Your task to perform on an android device: Open location settings Image 0: 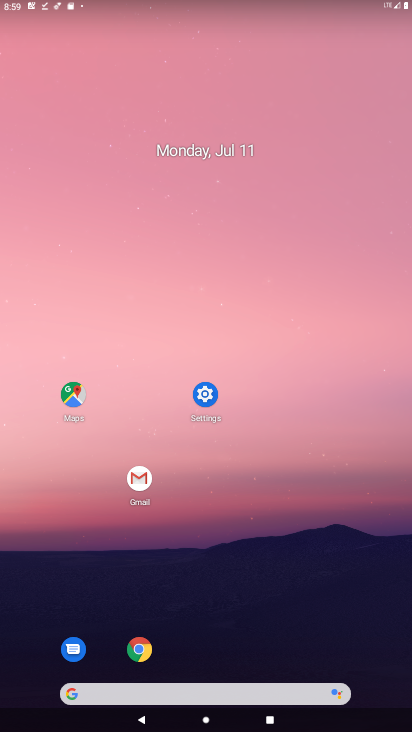
Step 0: click (215, 391)
Your task to perform on an android device: Open location settings Image 1: 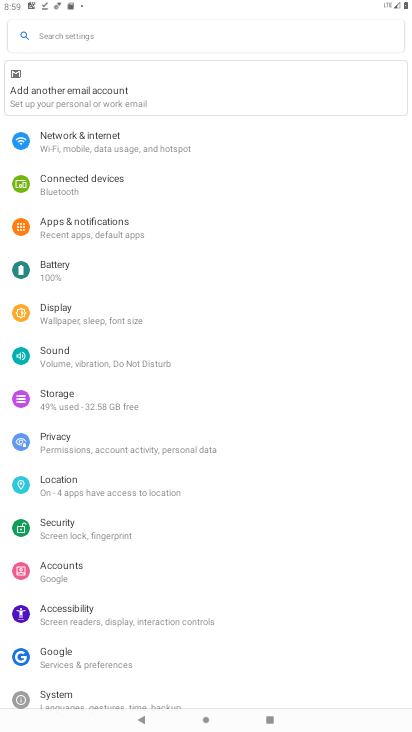
Step 1: click (57, 488)
Your task to perform on an android device: Open location settings Image 2: 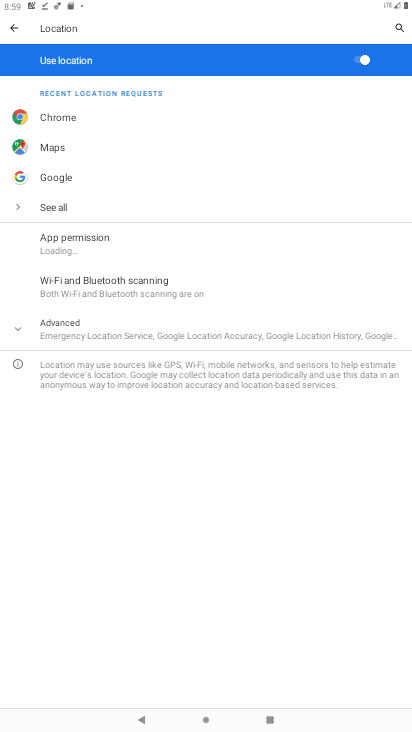
Step 2: click (22, 329)
Your task to perform on an android device: Open location settings Image 3: 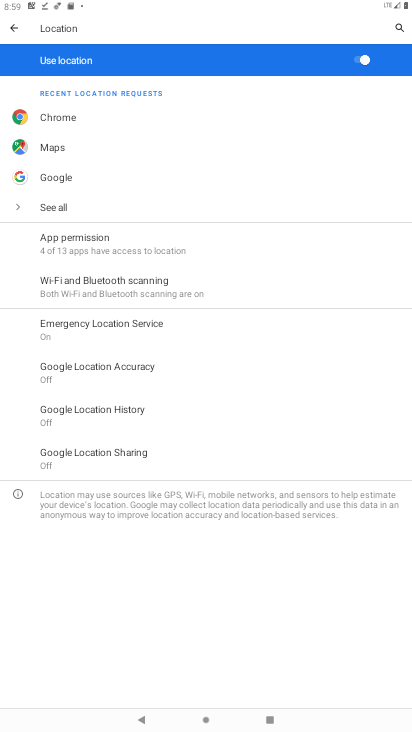
Step 3: task complete